Your task to perform on an android device: Go to network settings Image 0: 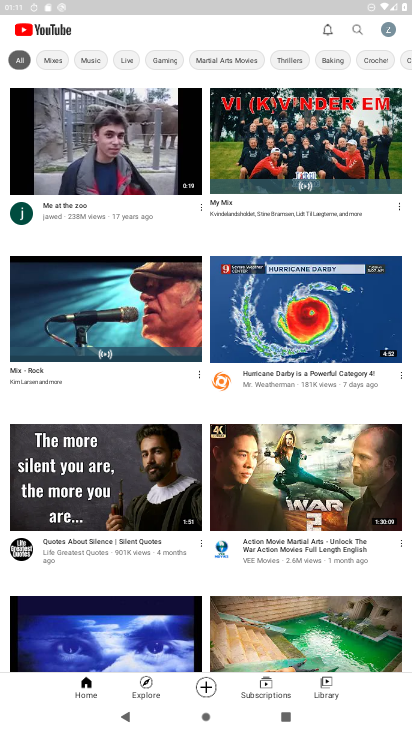
Step 0: press home button
Your task to perform on an android device: Go to network settings Image 1: 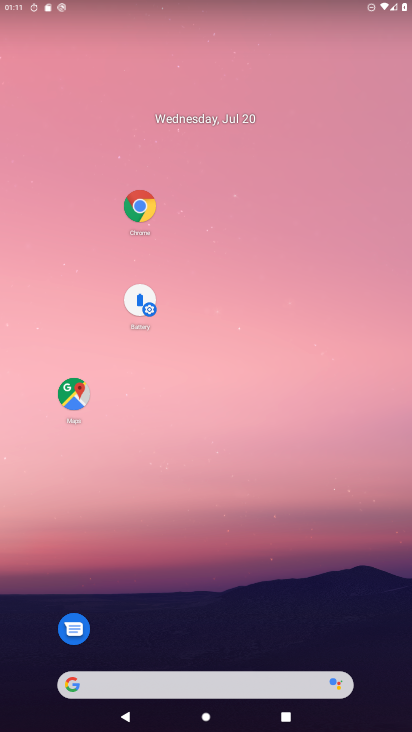
Step 1: drag from (232, 572) to (367, 89)
Your task to perform on an android device: Go to network settings Image 2: 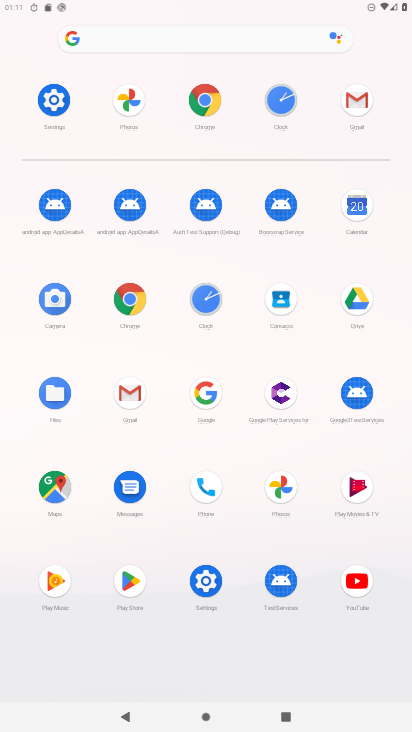
Step 2: click (52, 110)
Your task to perform on an android device: Go to network settings Image 3: 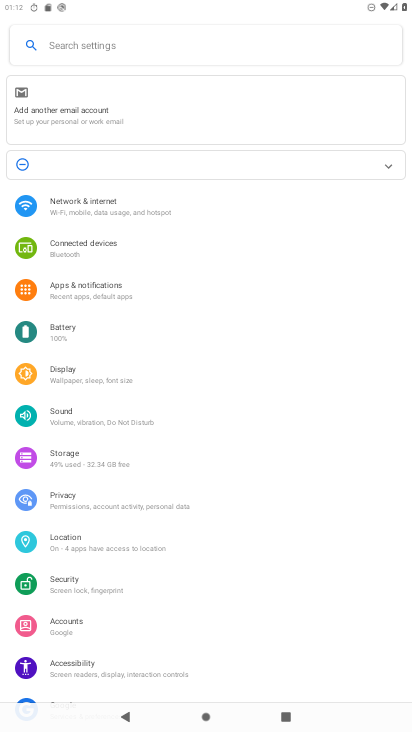
Step 3: click (72, 204)
Your task to perform on an android device: Go to network settings Image 4: 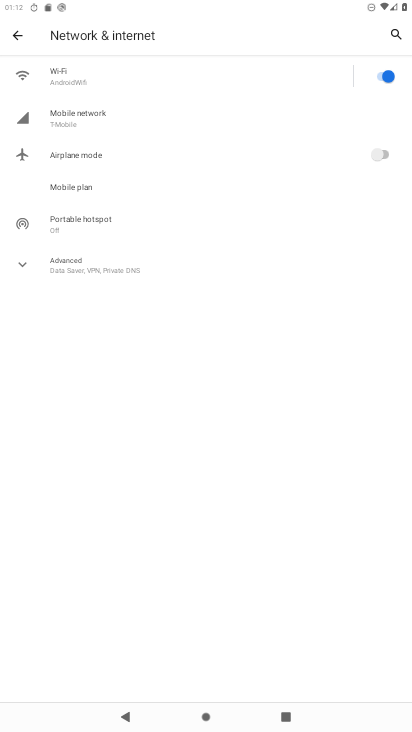
Step 4: task complete